Your task to perform on an android device: Go to battery settings Image 0: 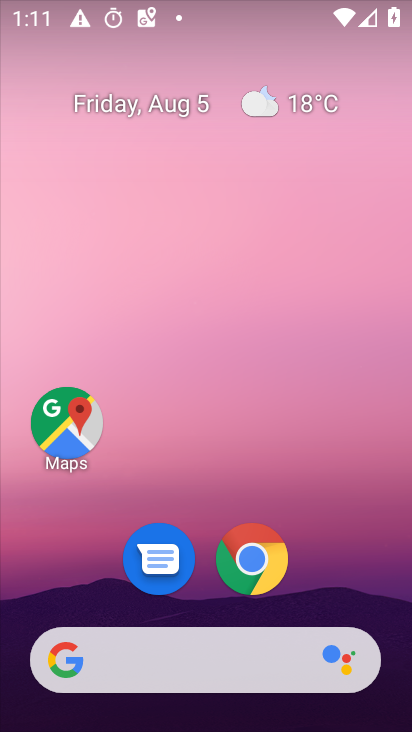
Step 0: drag from (27, 694) to (165, 235)
Your task to perform on an android device: Go to battery settings Image 1: 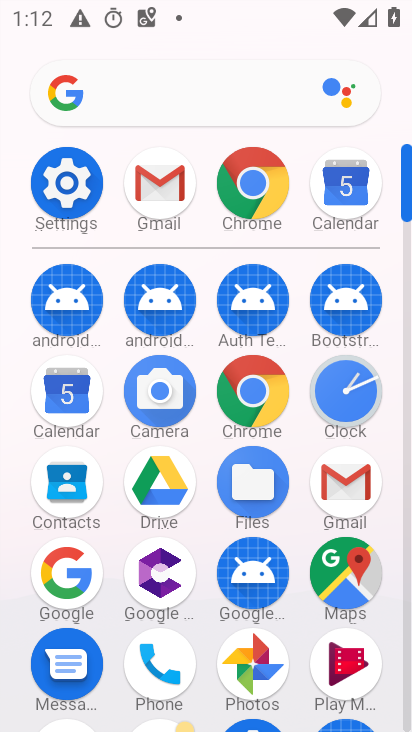
Step 1: click (74, 172)
Your task to perform on an android device: Go to battery settings Image 2: 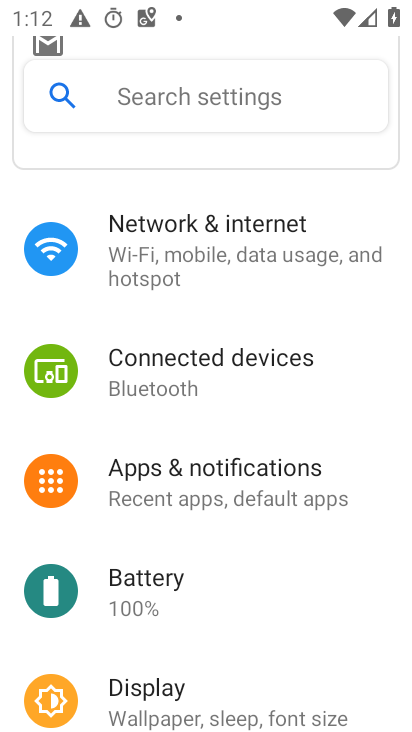
Step 2: click (183, 585)
Your task to perform on an android device: Go to battery settings Image 3: 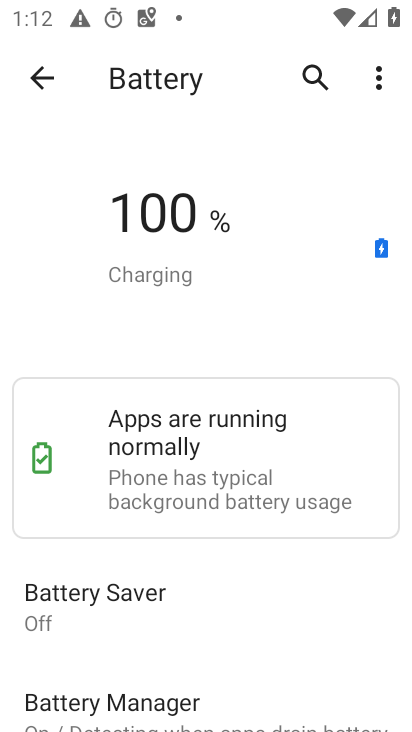
Step 3: task complete